Your task to perform on an android device: open chrome and create a bookmark for the current page Image 0: 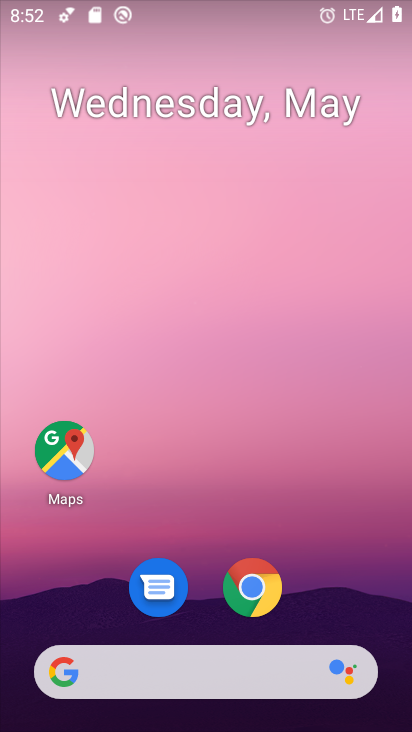
Step 0: drag from (300, 302) to (308, 261)
Your task to perform on an android device: open chrome and create a bookmark for the current page Image 1: 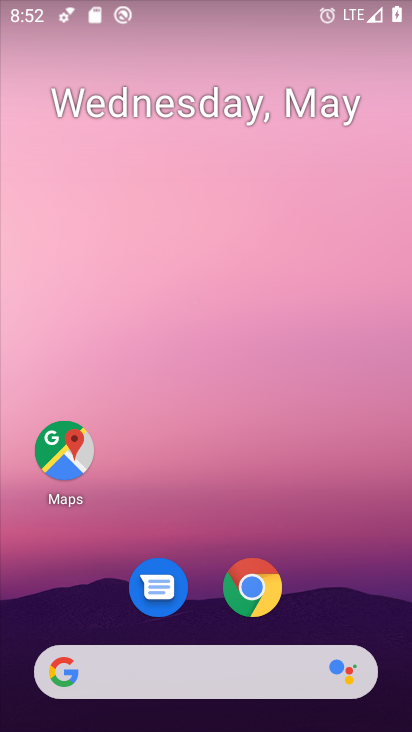
Step 1: click (252, 583)
Your task to perform on an android device: open chrome and create a bookmark for the current page Image 2: 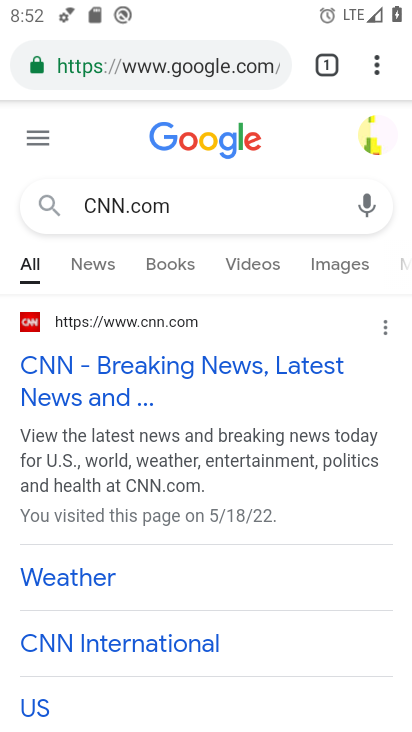
Step 2: click (382, 57)
Your task to perform on an android device: open chrome and create a bookmark for the current page Image 3: 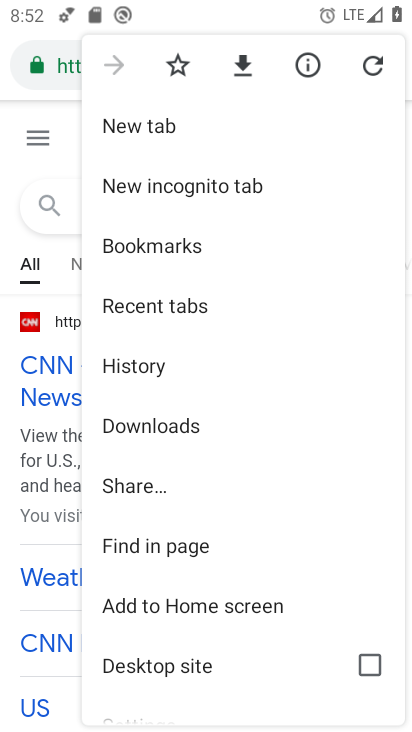
Step 3: click (174, 70)
Your task to perform on an android device: open chrome and create a bookmark for the current page Image 4: 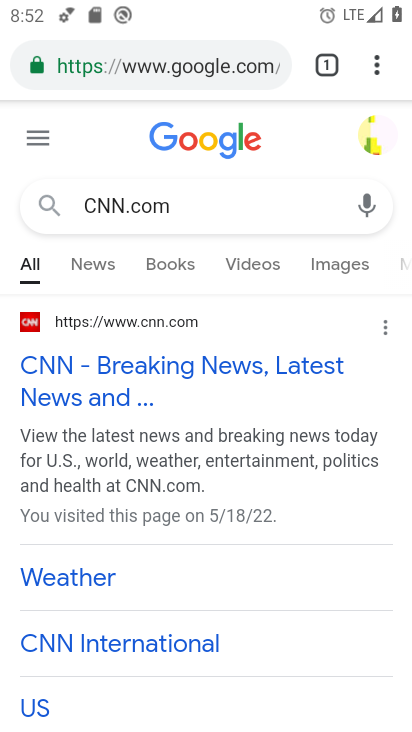
Step 4: task complete